Your task to perform on an android device: Go to battery settings Image 0: 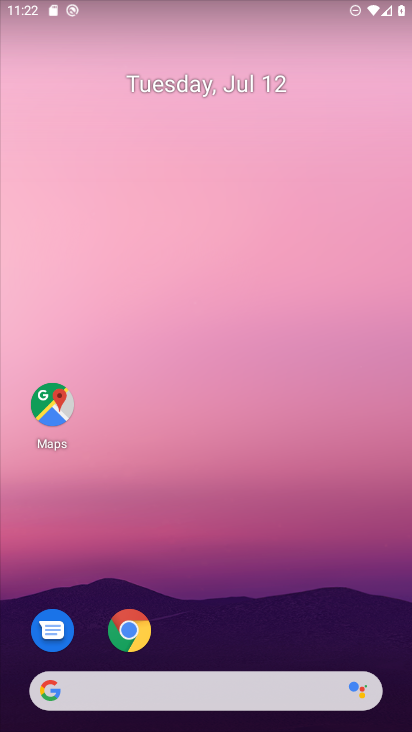
Step 0: drag from (289, 673) to (224, 142)
Your task to perform on an android device: Go to battery settings Image 1: 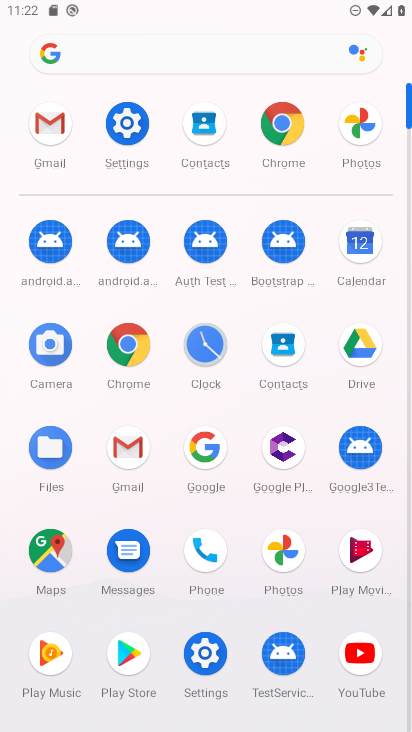
Step 1: click (126, 122)
Your task to perform on an android device: Go to battery settings Image 2: 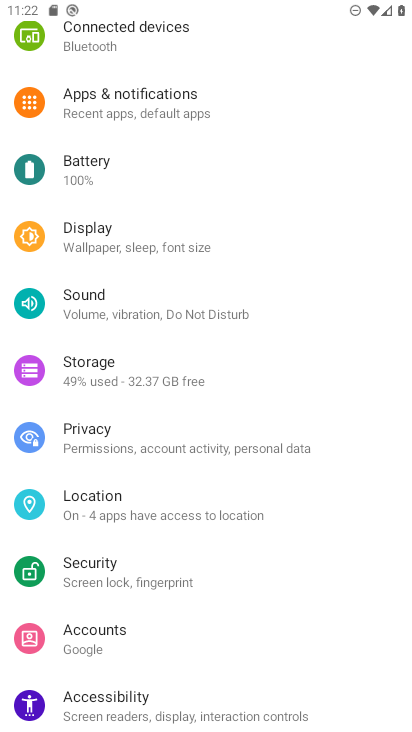
Step 2: click (100, 165)
Your task to perform on an android device: Go to battery settings Image 3: 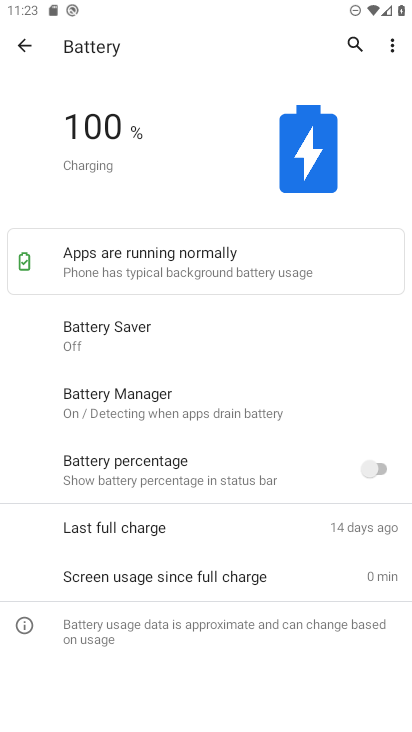
Step 3: task complete